Your task to perform on an android device: Show me the best 1080p monitor on Target.com Image 0: 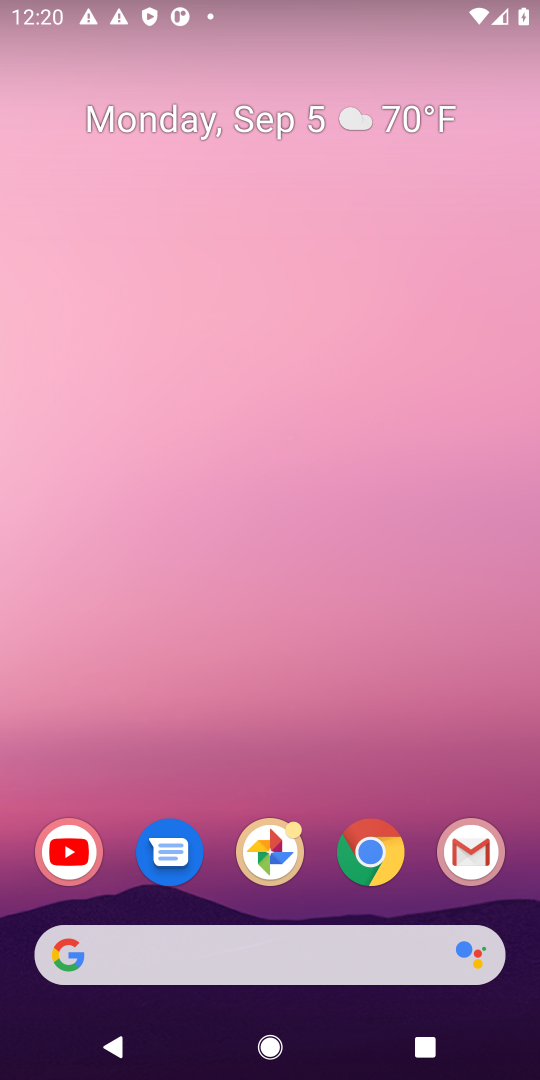
Step 0: click (373, 846)
Your task to perform on an android device: Show me the best 1080p monitor on Target.com Image 1: 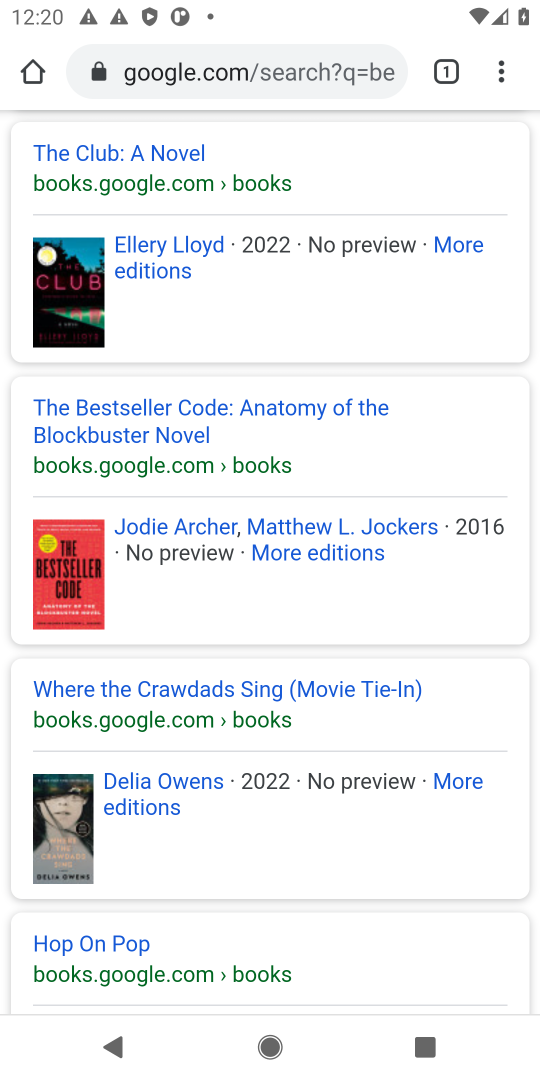
Step 1: click (256, 51)
Your task to perform on an android device: Show me the best 1080p monitor on Target.com Image 2: 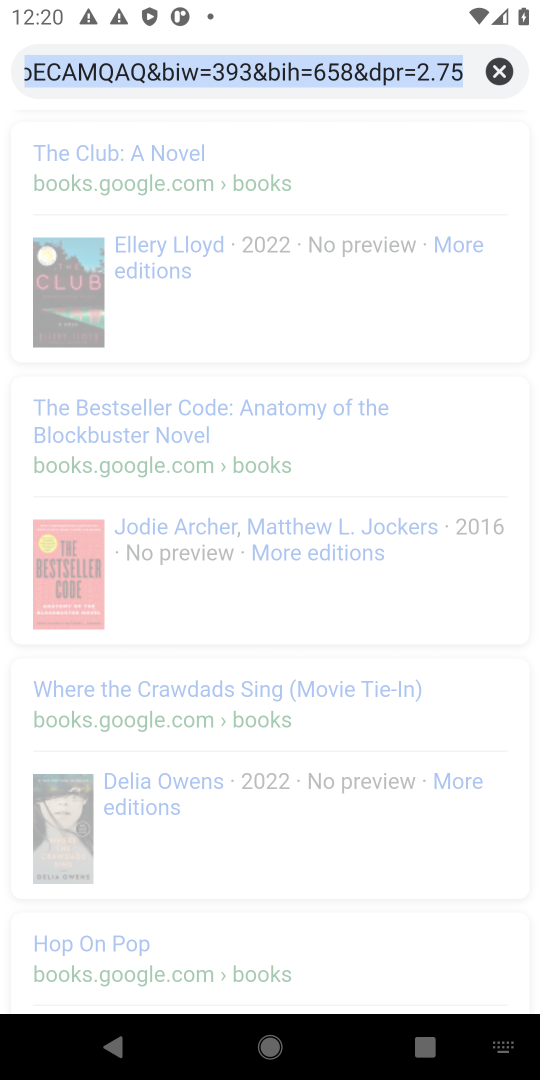
Step 2: click (495, 67)
Your task to perform on an android device: Show me the best 1080p monitor on Target.com Image 3: 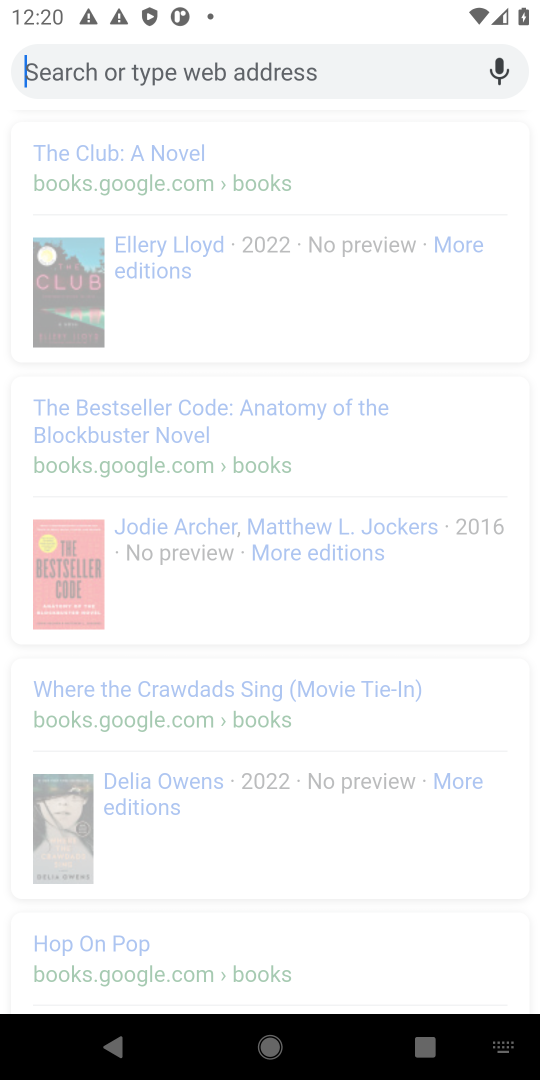
Step 3: type "Target.com"
Your task to perform on an android device: Show me the best 1080p monitor on Target.com Image 4: 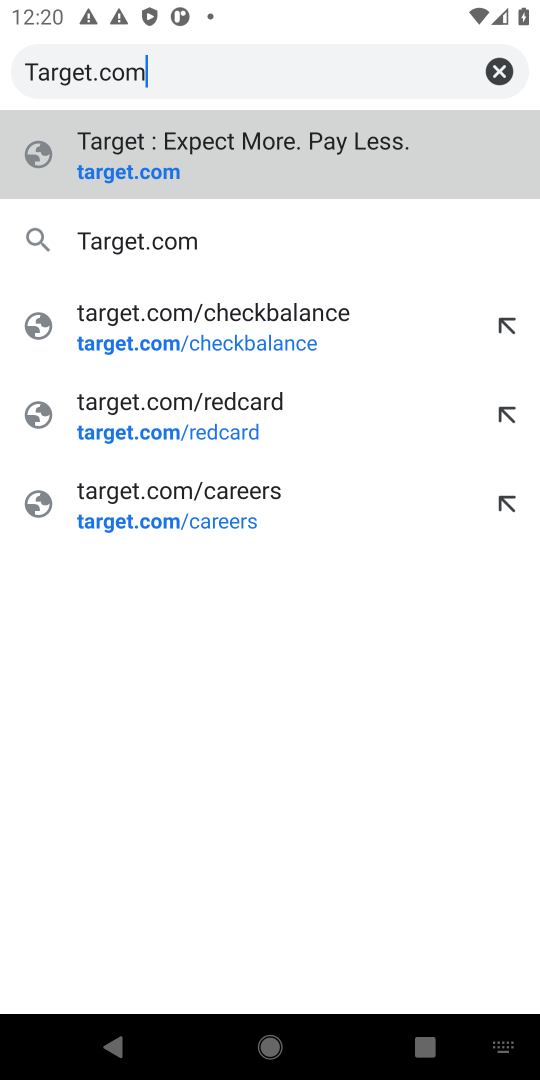
Step 4: click (122, 145)
Your task to perform on an android device: Show me the best 1080p monitor on Target.com Image 5: 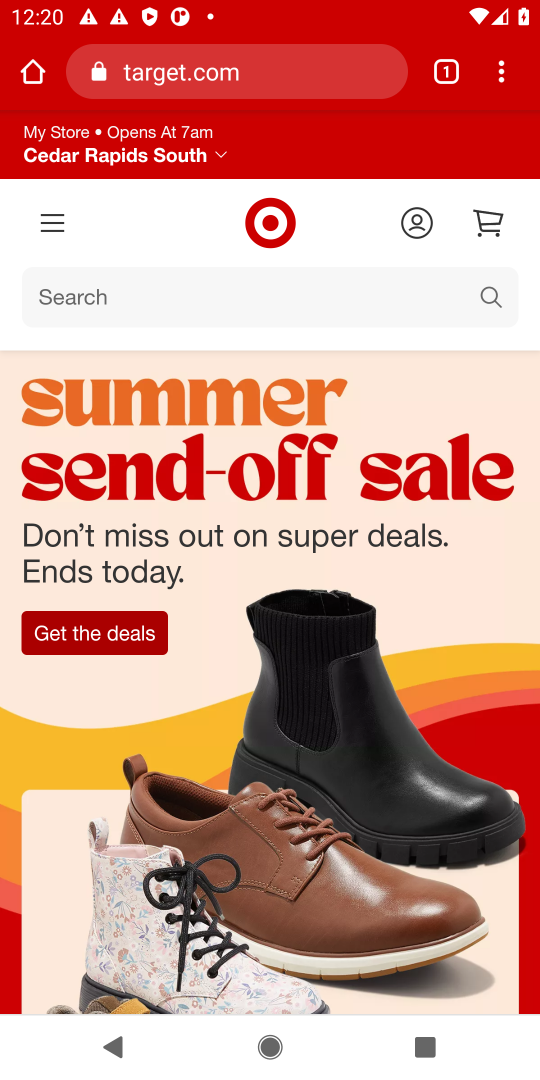
Step 5: click (97, 292)
Your task to perform on an android device: Show me the best 1080p monitor on Target.com Image 6: 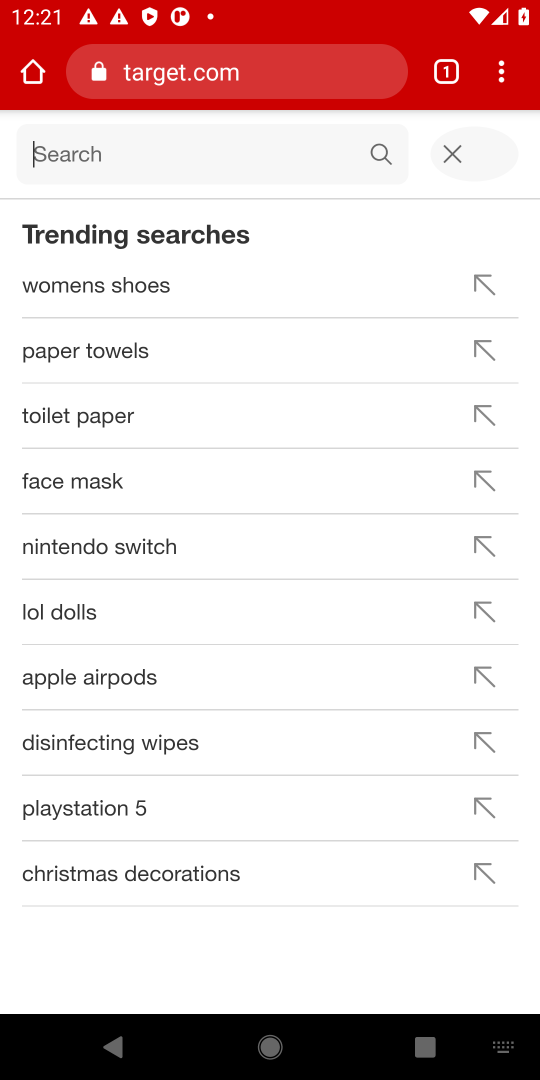
Step 6: type "1080p monitor"
Your task to perform on an android device: Show me the best 1080p monitor on Target.com Image 7: 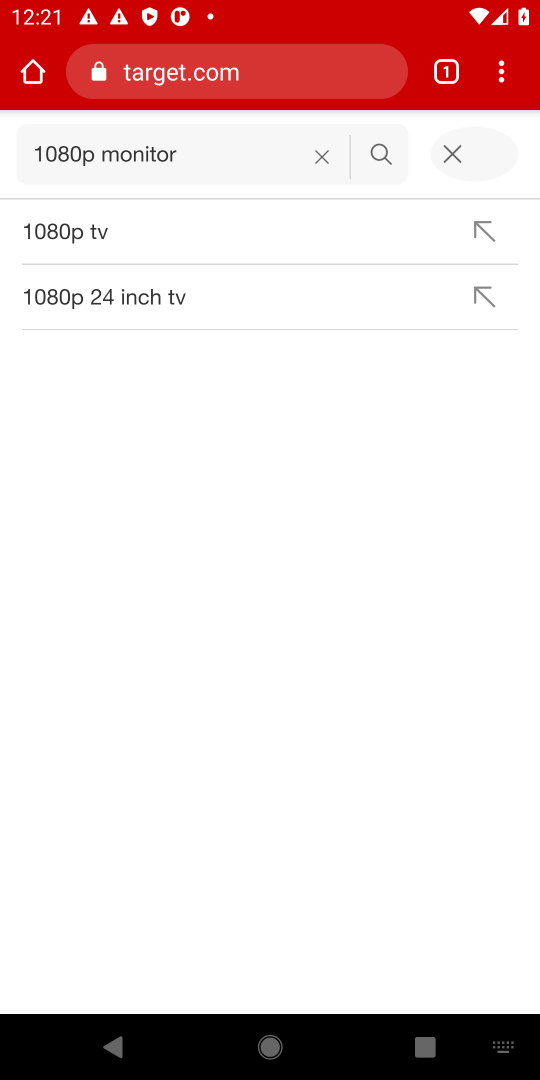
Step 7: click (382, 149)
Your task to perform on an android device: Show me the best 1080p monitor on Target.com Image 8: 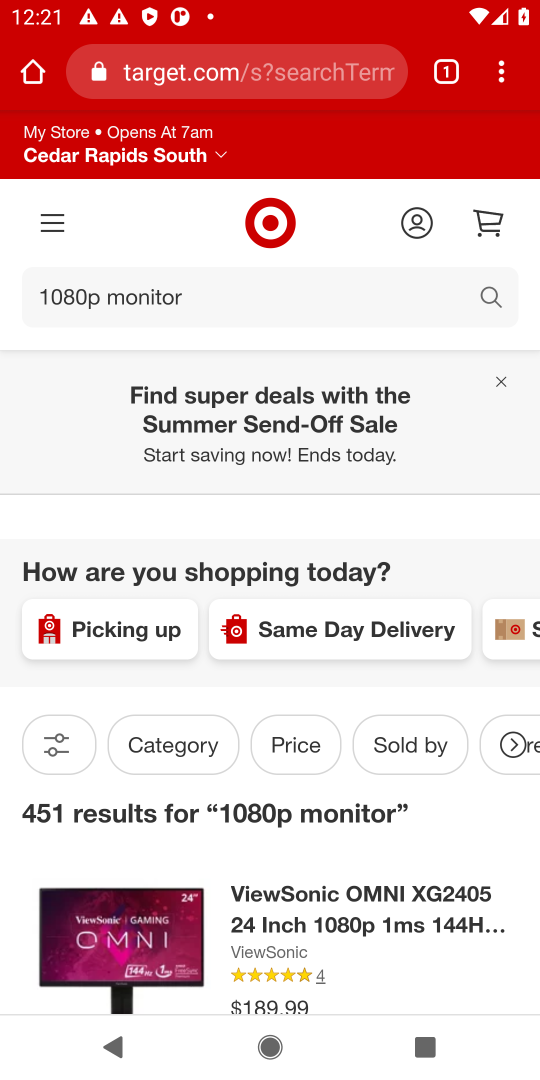
Step 8: drag from (250, 855) to (237, 475)
Your task to perform on an android device: Show me the best 1080p monitor on Target.com Image 9: 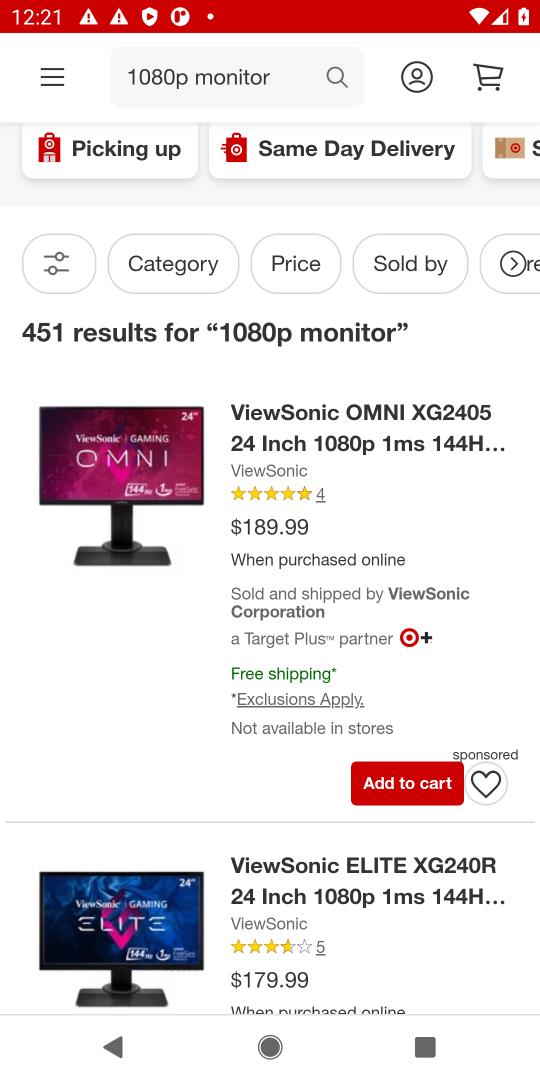
Step 9: click (51, 253)
Your task to perform on an android device: Show me the best 1080p monitor on Target.com Image 10: 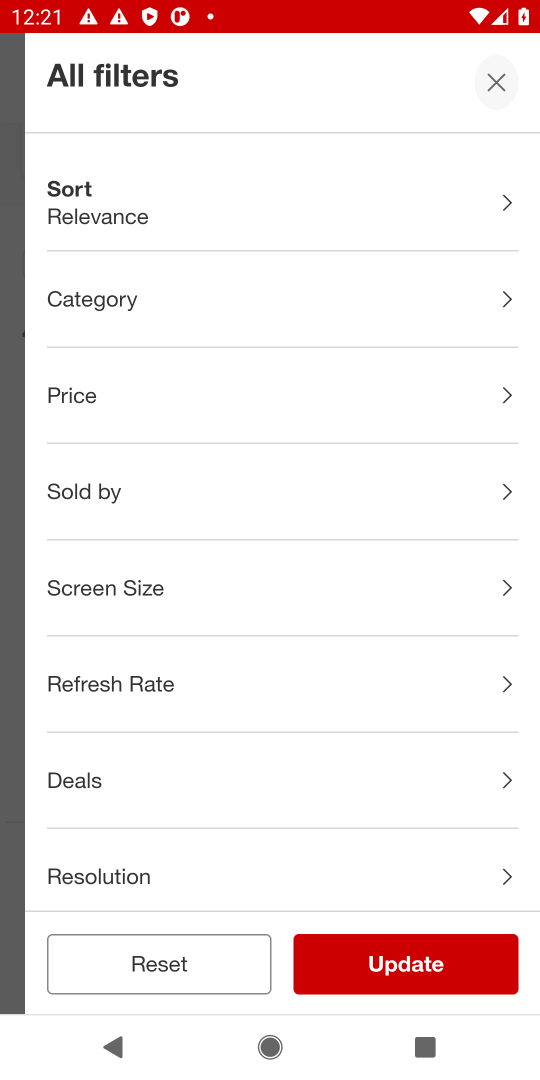
Step 10: click (498, 82)
Your task to perform on an android device: Show me the best 1080p monitor on Target.com Image 11: 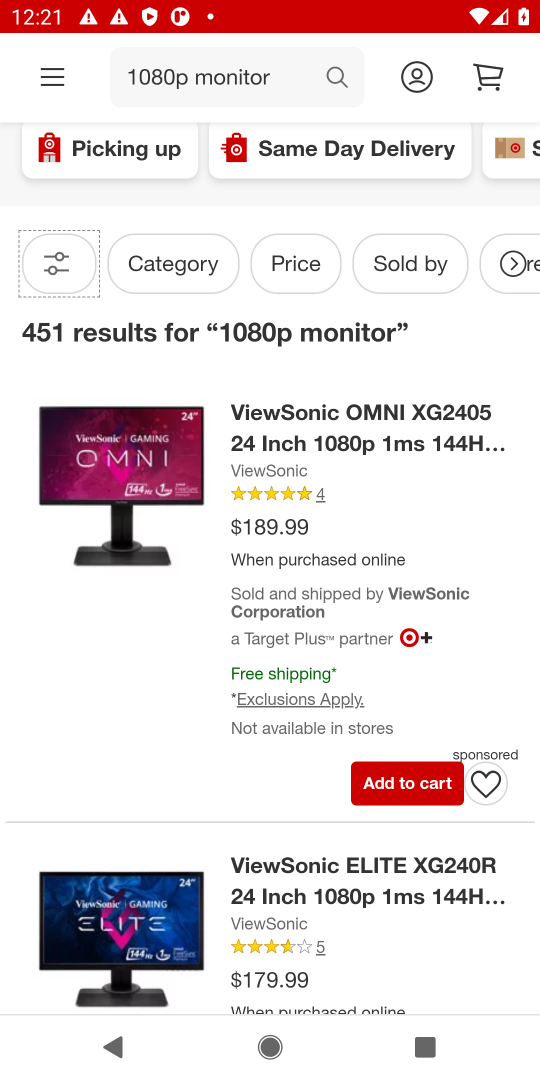
Step 11: task complete